Your task to perform on an android device: turn on wifi Image 0: 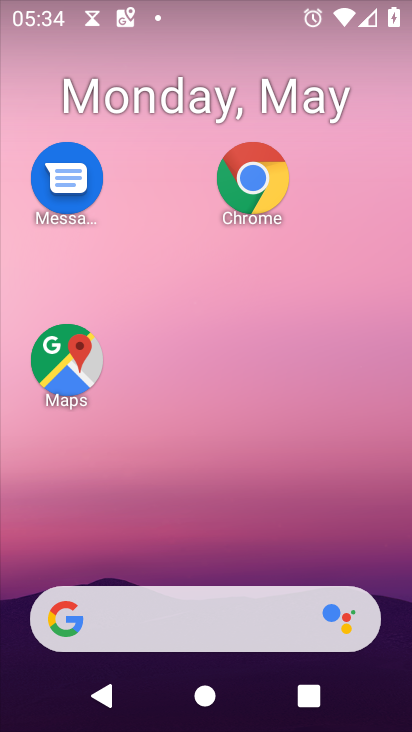
Step 0: drag from (161, 548) to (171, 130)
Your task to perform on an android device: turn on wifi Image 1: 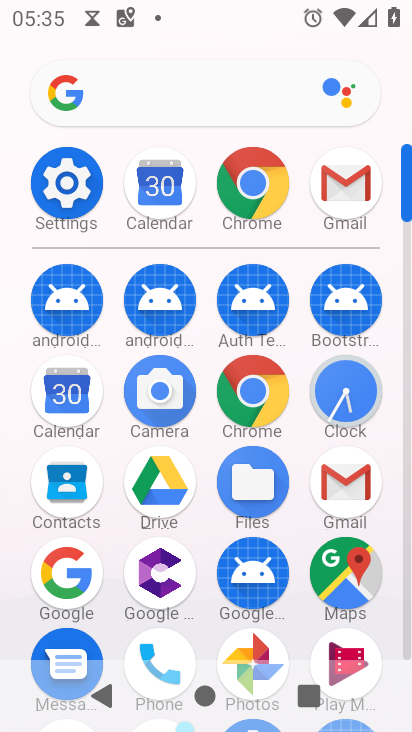
Step 1: click (65, 179)
Your task to perform on an android device: turn on wifi Image 2: 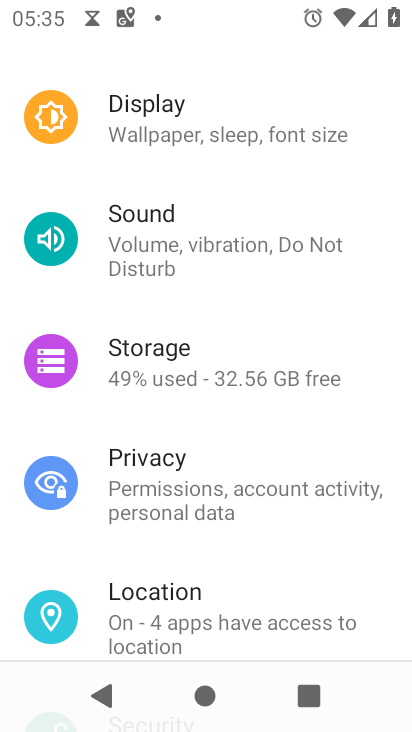
Step 2: drag from (134, 182) to (168, 678)
Your task to perform on an android device: turn on wifi Image 3: 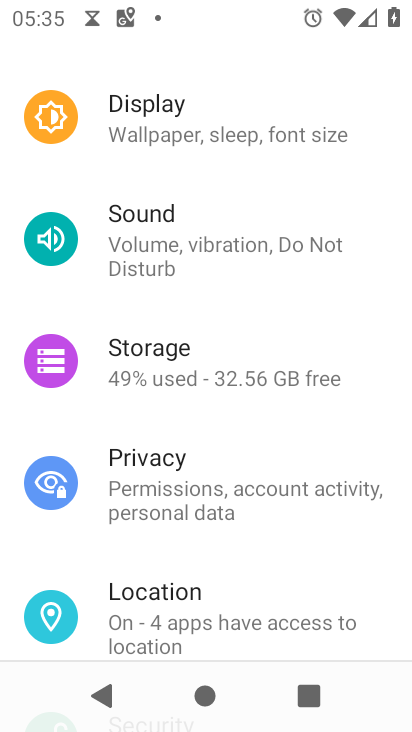
Step 3: drag from (174, 537) to (184, 618)
Your task to perform on an android device: turn on wifi Image 4: 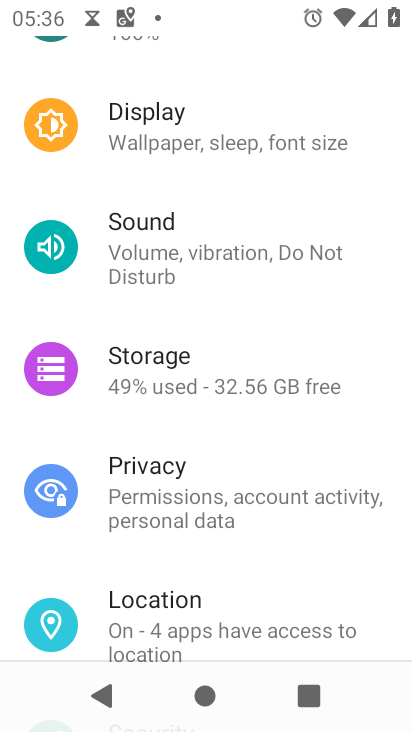
Step 4: drag from (208, 221) to (112, 726)
Your task to perform on an android device: turn on wifi Image 5: 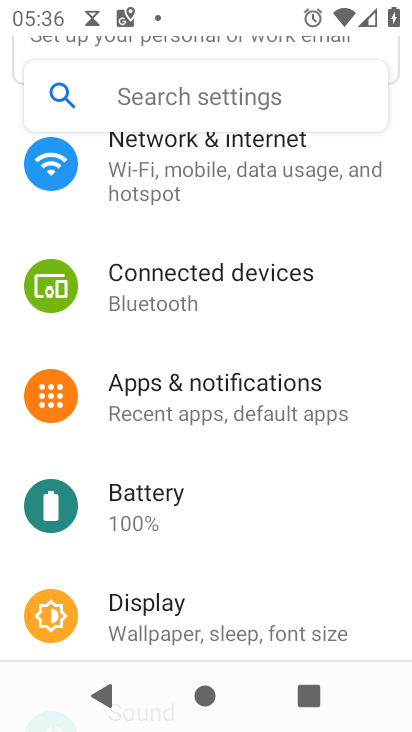
Step 5: drag from (160, 585) to (160, 185)
Your task to perform on an android device: turn on wifi Image 6: 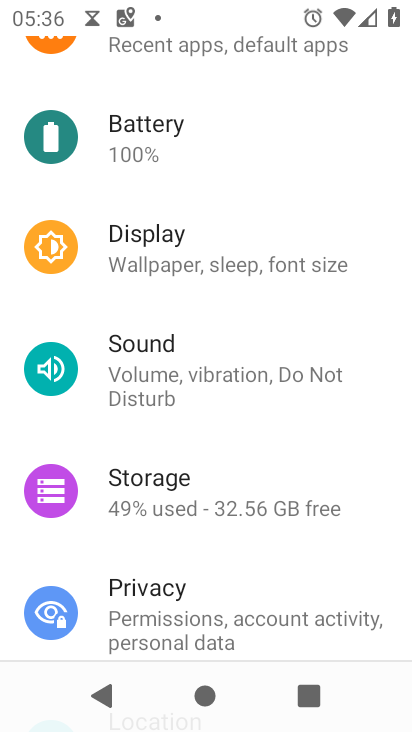
Step 6: drag from (195, 273) to (211, 728)
Your task to perform on an android device: turn on wifi Image 7: 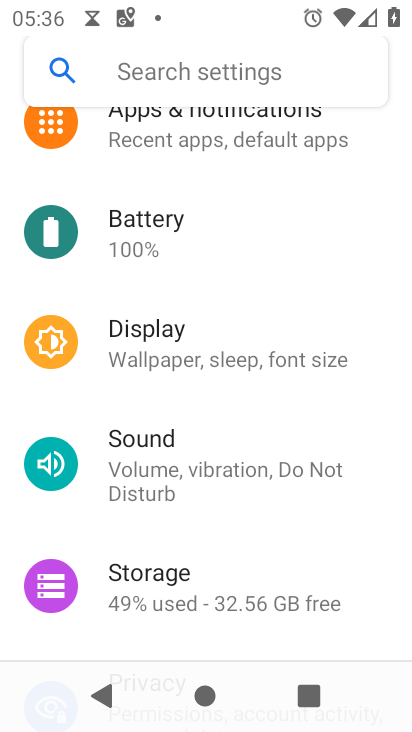
Step 7: drag from (208, 310) to (235, 731)
Your task to perform on an android device: turn on wifi Image 8: 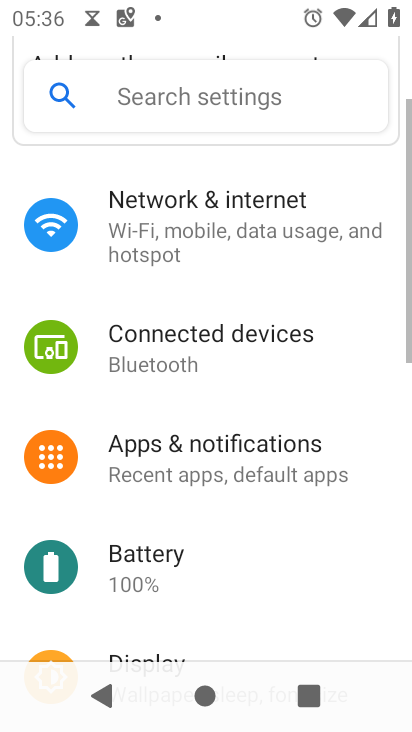
Step 8: drag from (196, 363) to (191, 595)
Your task to perform on an android device: turn on wifi Image 9: 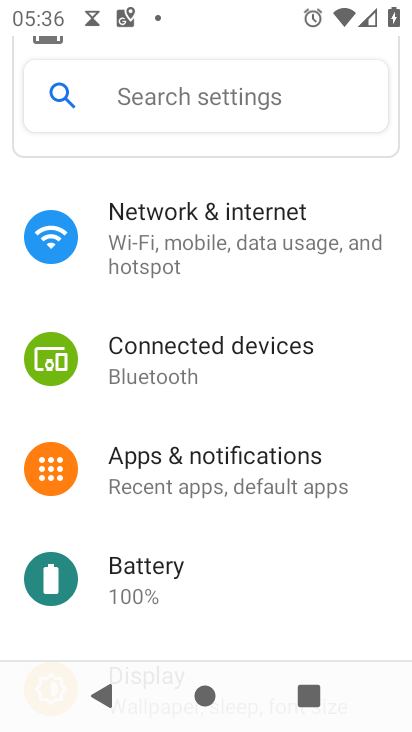
Step 9: click (165, 238)
Your task to perform on an android device: turn on wifi Image 10: 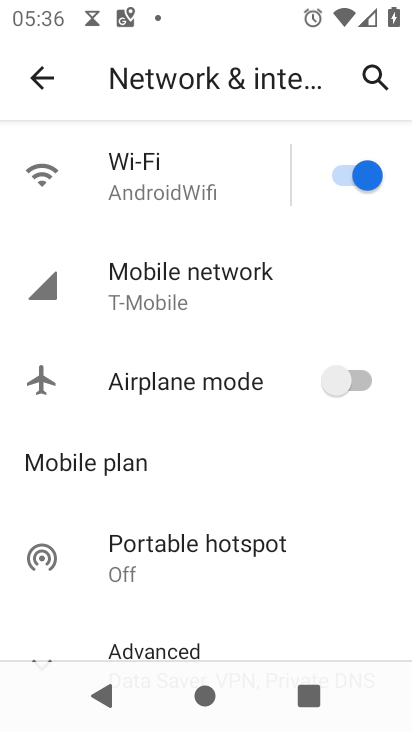
Step 10: task complete